Your task to perform on an android device: visit the assistant section in the google photos Image 0: 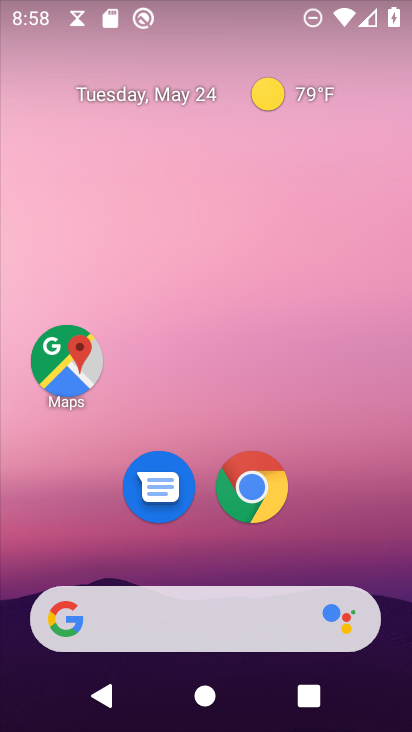
Step 0: drag from (118, 469) to (337, 116)
Your task to perform on an android device: visit the assistant section in the google photos Image 1: 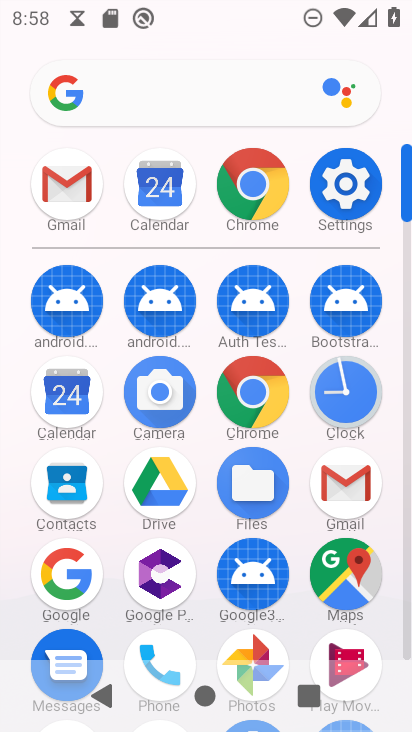
Step 1: click (250, 640)
Your task to perform on an android device: visit the assistant section in the google photos Image 2: 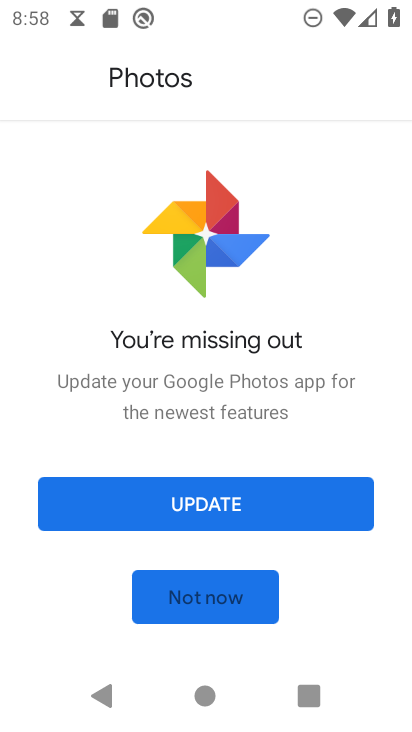
Step 2: click (186, 606)
Your task to perform on an android device: visit the assistant section in the google photos Image 3: 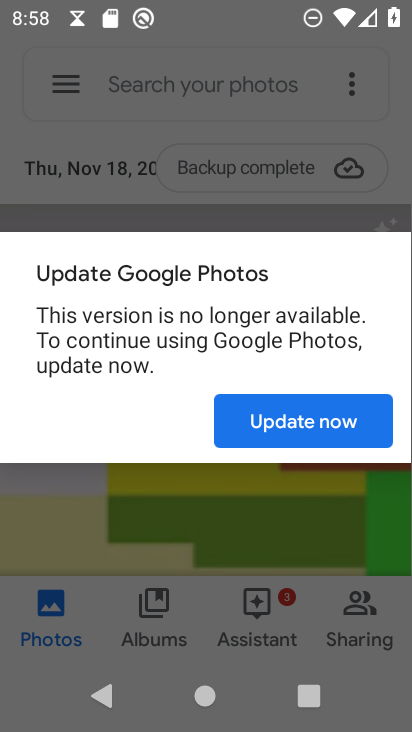
Step 3: click (285, 414)
Your task to perform on an android device: visit the assistant section in the google photos Image 4: 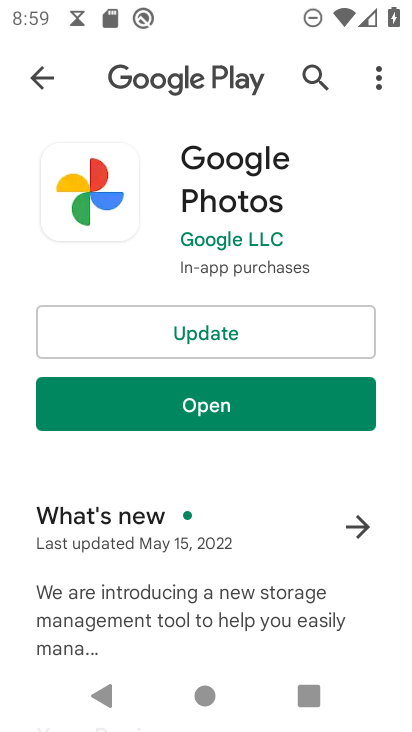
Step 4: click (273, 404)
Your task to perform on an android device: visit the assistant section in the google photos Image 5: 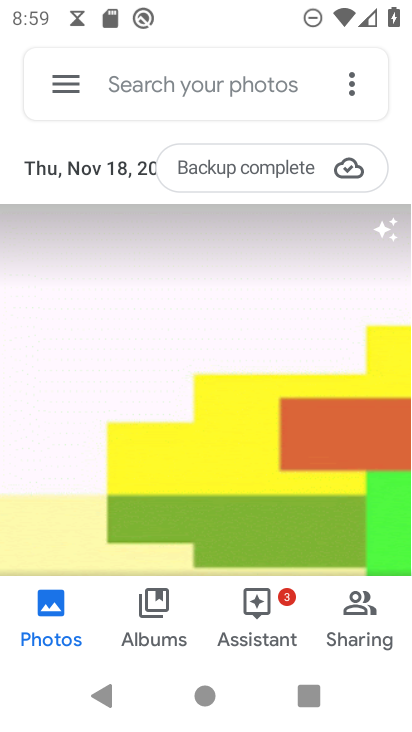
Step 5: click (260, 596)
Your task to perform on an android device: visit the assistant section in the google photos Image 6: 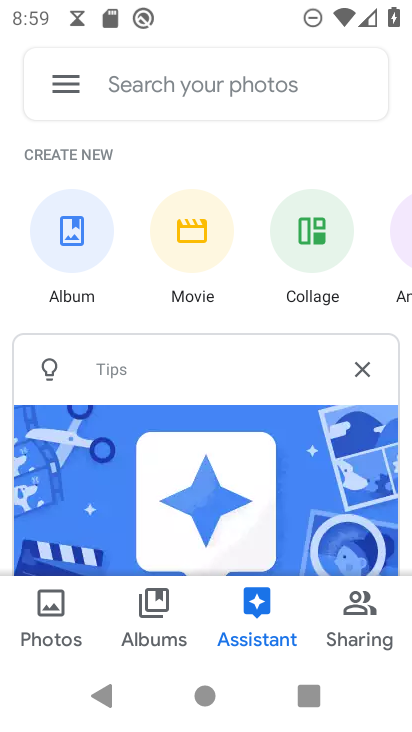
Step 6: task complete